Your task to perform on an android device: change the clock display to analog Image 0: 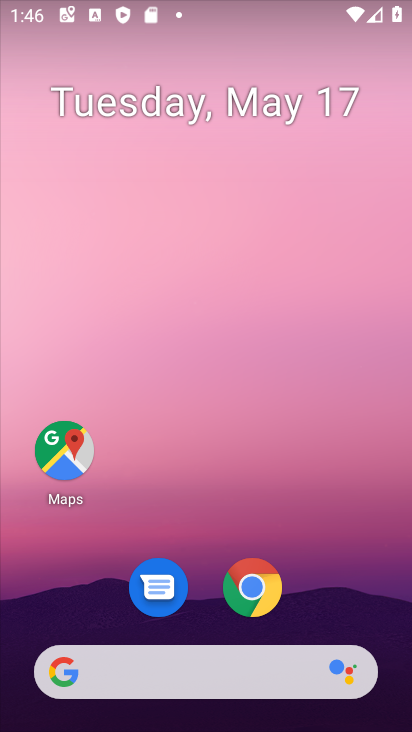
Step 0: drag from (214, 611) to (213, 126)
Your task to perform on an android device: change the clock display to analog Image 1: 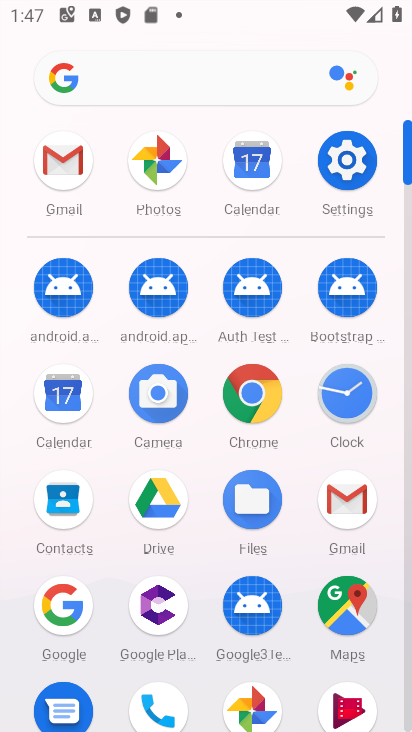
Step 1: click (357, 400)
Your task to perform on an android device: change the clock display to analog Image 2: 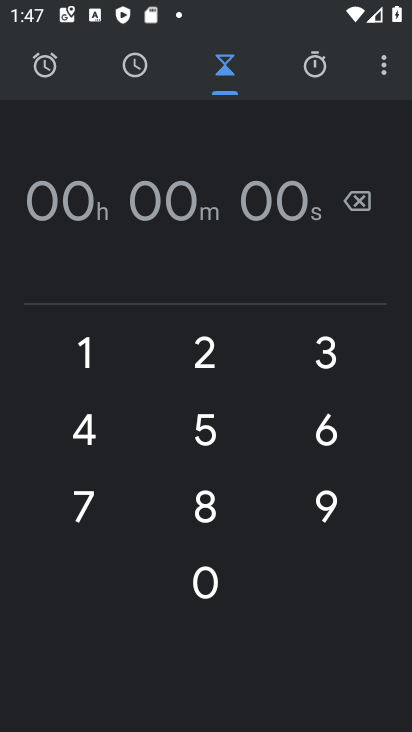
Step 2: click (380, 76)
Your task to perform on an android device: change the clock display to analog Image 3: 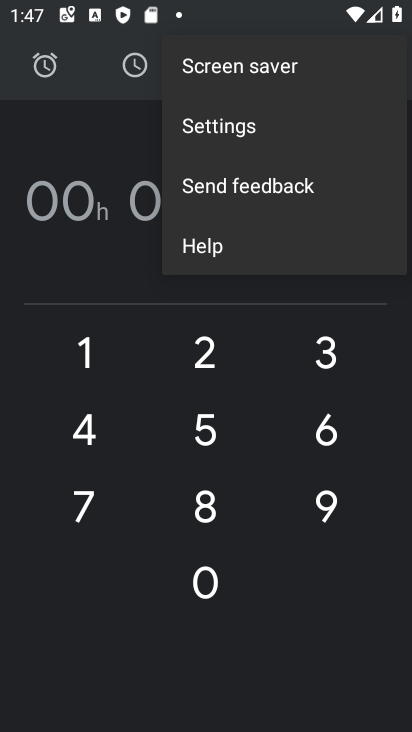
Step 3: click (253, 88)
Your task to perform on an android device: change the clock display to analog Image 4: 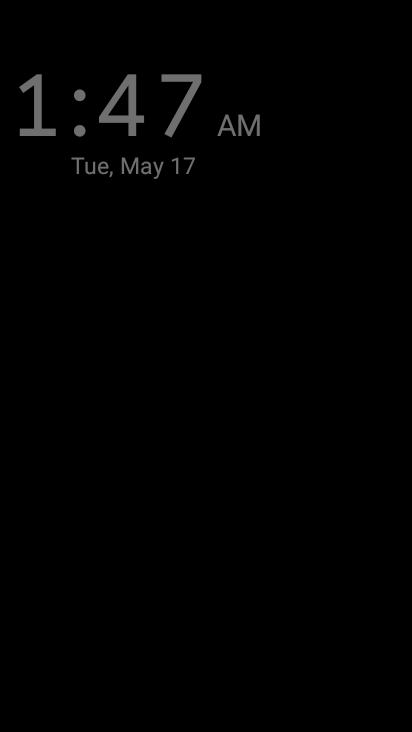
Step 4: drag from (285, 152) to (236, 232)
Your task to perform on an android device: change the clock display to analog Image 5: 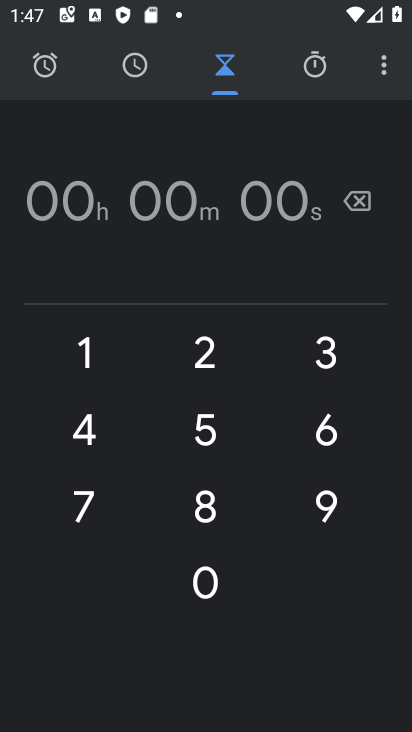
Step 5: click (378, 71)
Your task to perform on an android device: change the clock display to analog Image 6: 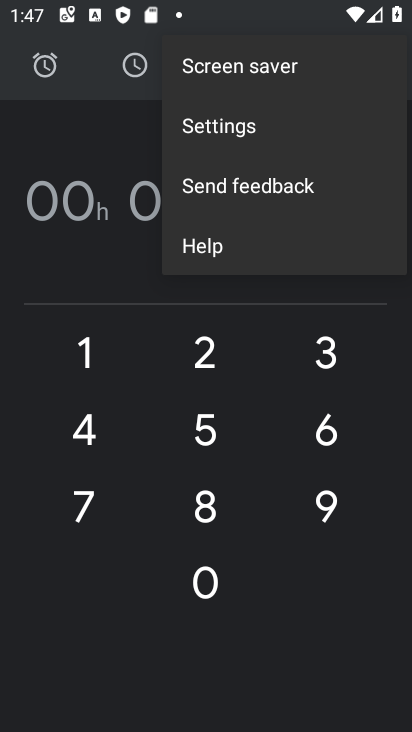
Step 6: click (278, 125)
Your task to perform on an android device: change the clock display to analog Image 7: 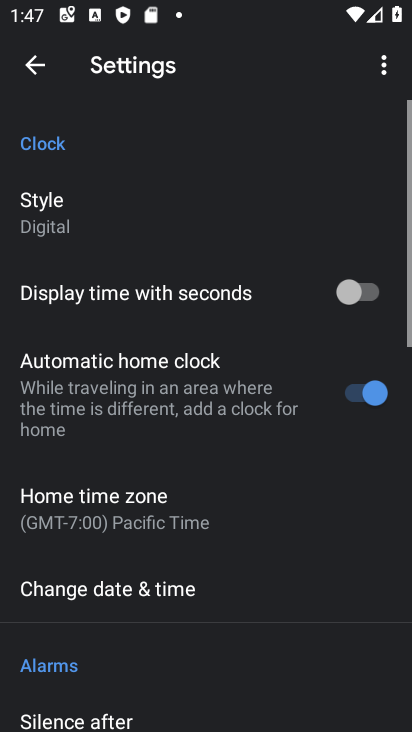
Step 7: click (72, 214)
Your task to perform on an android device: change the clock display to analog Image 8: 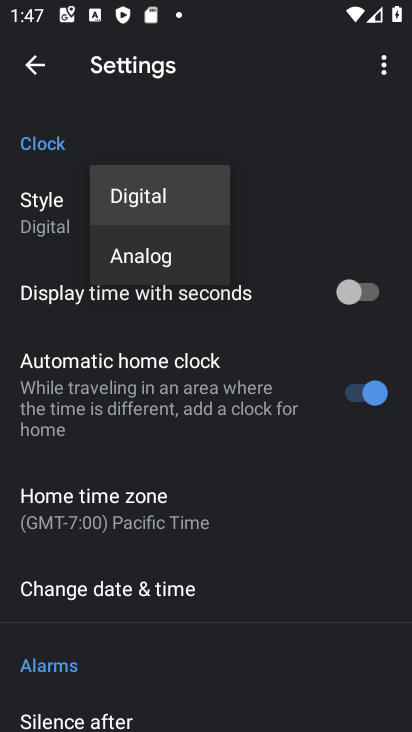
Step 8: click (175, 257)
Your task to perform on an android device: change the clock display to analog Image 9: 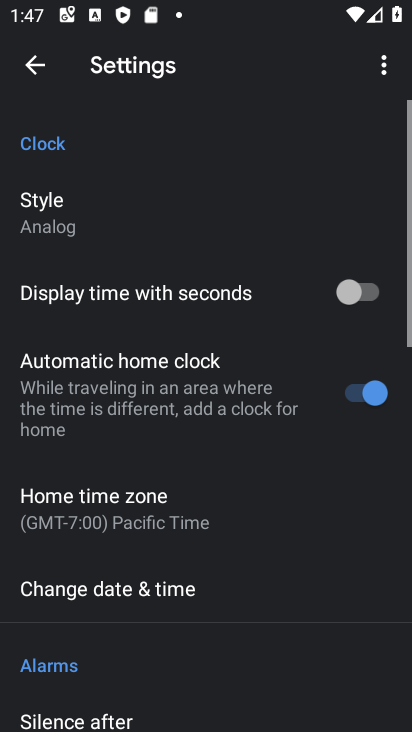
Step 9: task complete